Your task to perform on an android device: Go to CNN.com Image 0: 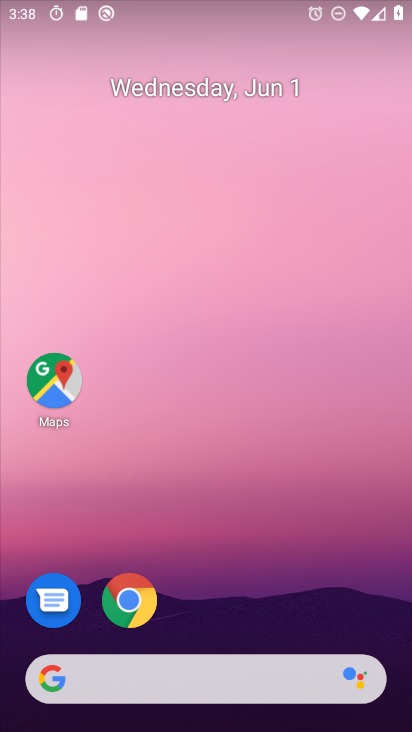
Step 0: click (127, 604)
Your task to perform on an android device: Go to CNN.com Image 1: 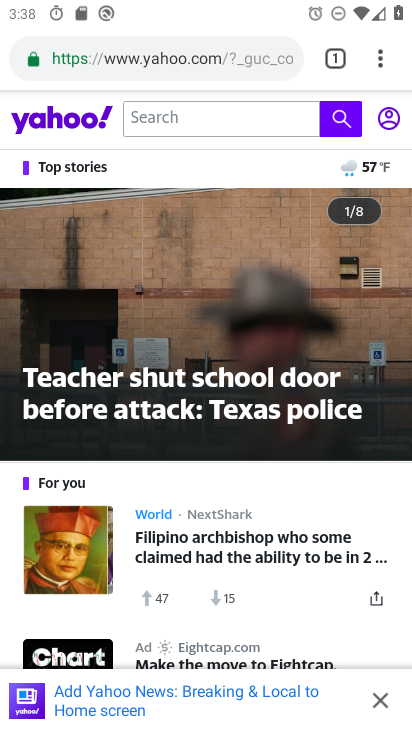
Step 1: click (215, 56)
Your task to perform on an android device: Go to CNN.com Image 2: 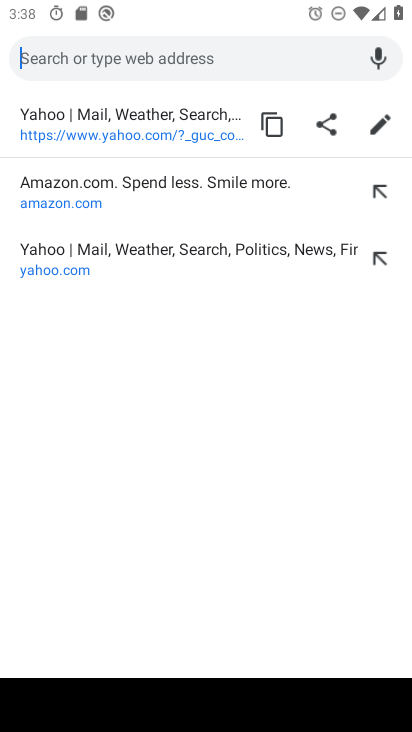
Step 2: click (133, 55)
Your task to perform on an android device: Go to CNN.com Image 3: 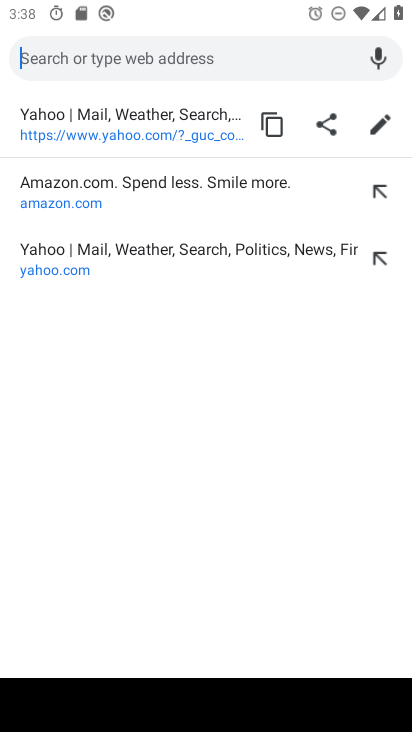
Step 3: type "www.cnn.com"
Your task to perform on an android device: Go to CNN.com Image 4: 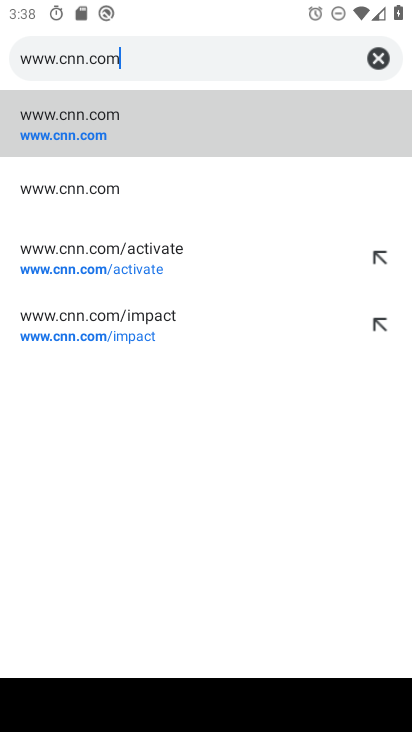
Step 4: click (77, 128)
Your task to perform on an android device: Go to CNN.com Image 5: 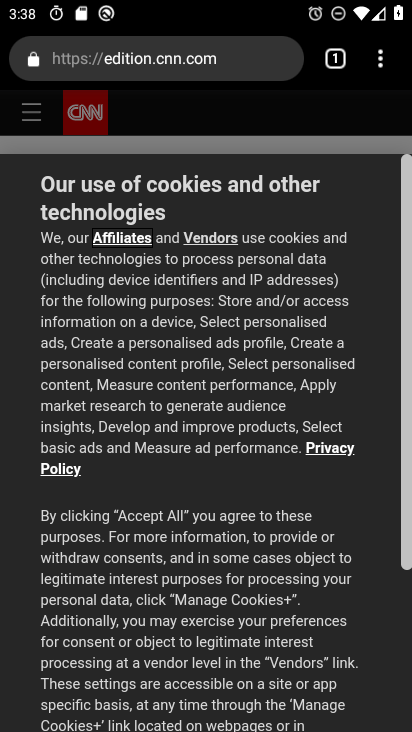
Step 5: task complete